Your task to perform on an android device: change the clock display to show seconds Image 0: 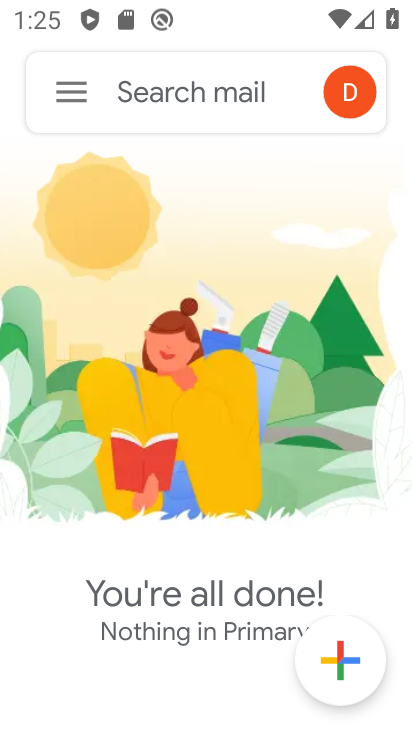
Step 0: press home button
Your task to perform on an android device: change the clock display to show seconds Image 1: 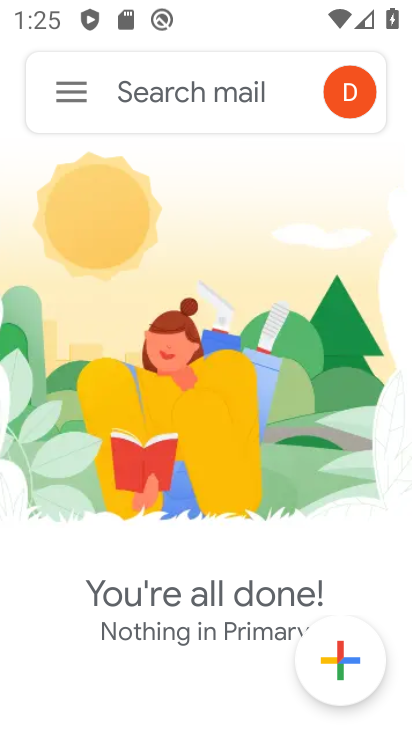
Step 1: press home button
Your task to perform on an android device: change the clock display to show seconds Image 2: 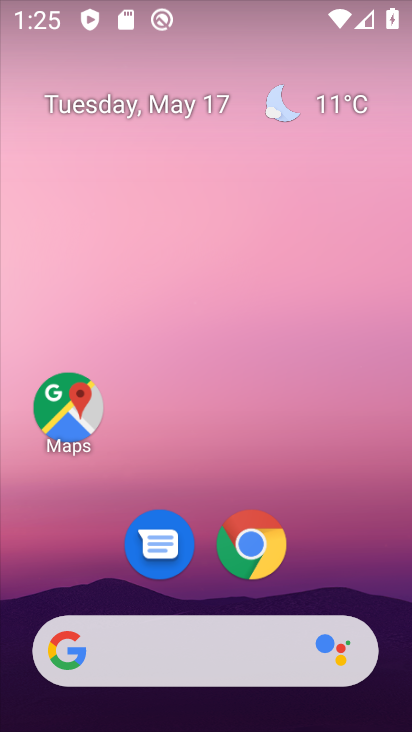
Step 2: drag from (308, 613) to (299, 1)
Your task to perform on an android device: change the clock display to show seconds Image 3: 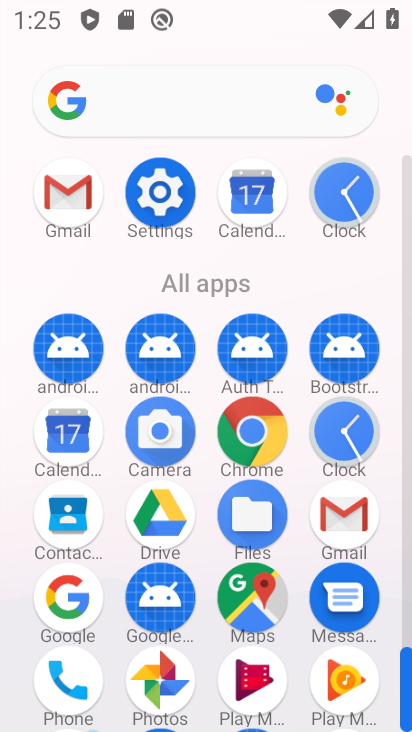
Step 3: click (325, 200)
Your task to perform on an android device: change the clock display to show seconds Image 4: 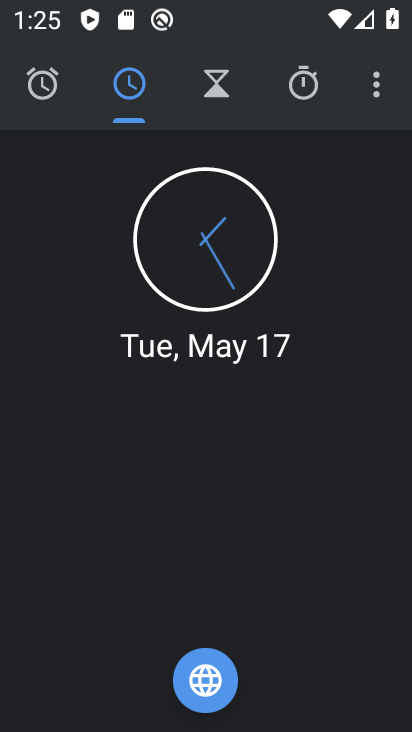
Step 4: click (374, 85)
Your task to perform on an android device: change the clock display to show seconds Image 5: 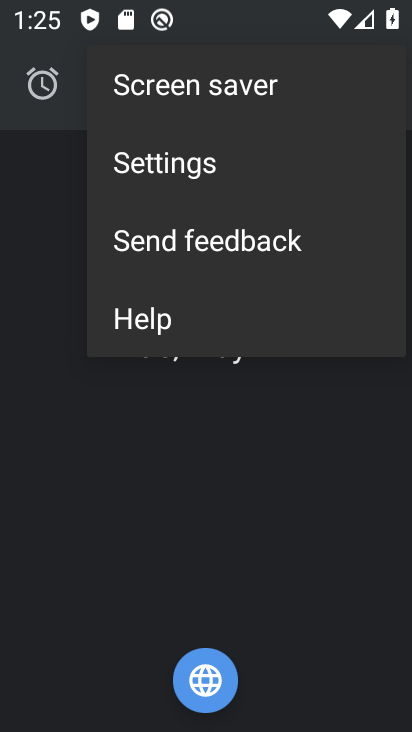
Step 5: click (220, 186)
Your task to perform on an android device: change the clock display to show seconds Image 6: 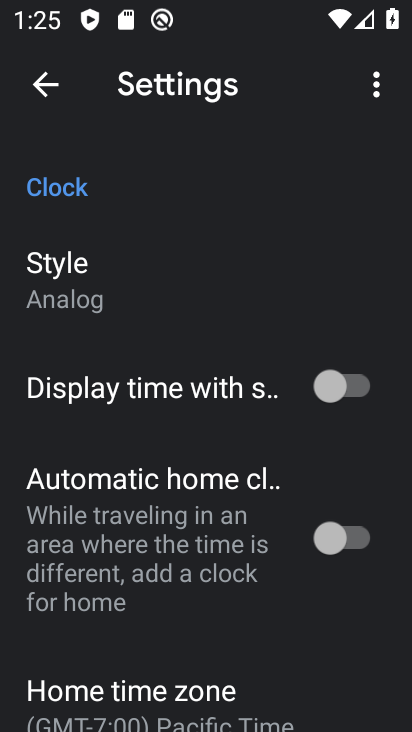
Step 6: click (222, 379)
Your task to perform on an android device: change the clock display to show seconds Image 7: 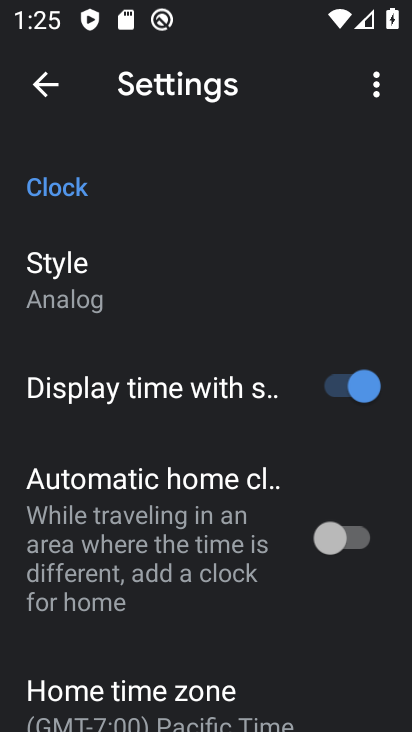
Step 7: task complete